Your task to perform on an android device: Search for Mexican restaurants on Maps Image 0: 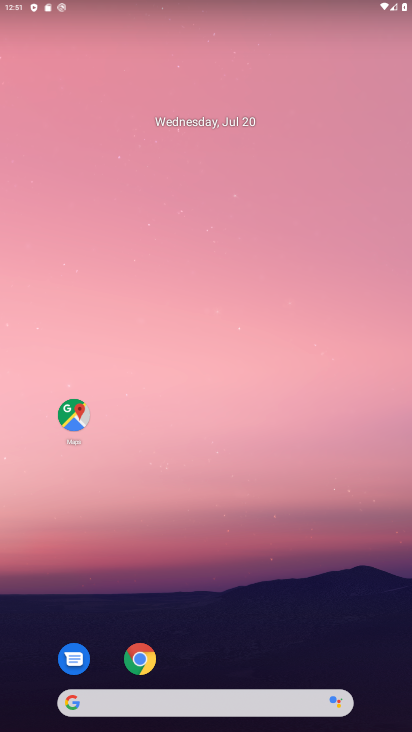
Step 0: drag from (359, 649) to (189, 16)
Your task to perform on an android device: Search for Mexican restaurants on Maps Image 1: 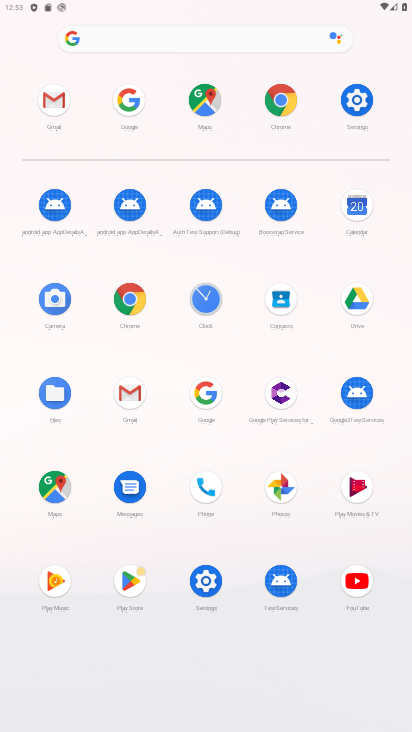
Step 1: click (55, 486)
Your task to perform on an android device: Search for Mexican restaurants on Maps Image 2: 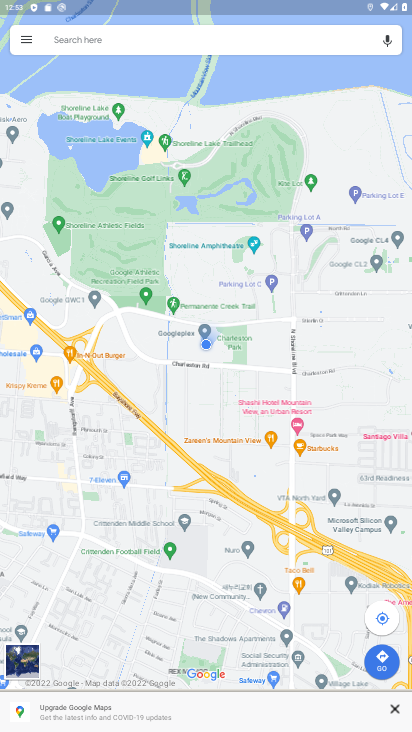
Step 2: click (128, 35)
Your task to perform on an android device: Search for Mexican restaurants on Maps Image 3: 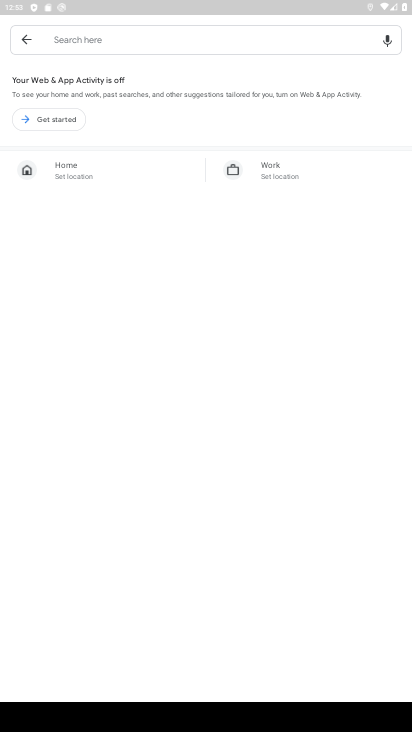
Step 3: click (58, 123)
Your task to perform on an android device: Search for Mexican restaurants on Maps Image 4: 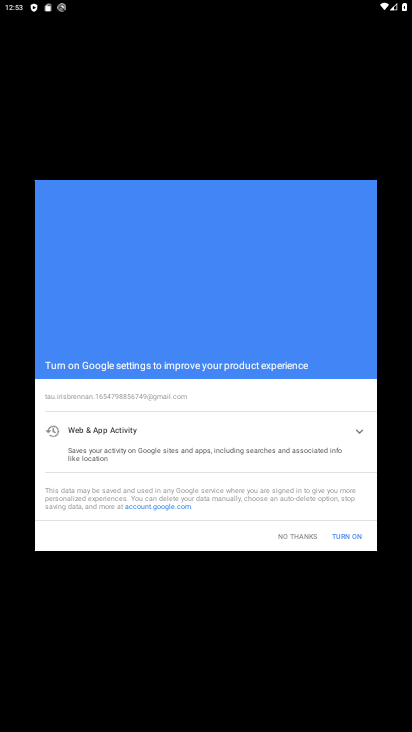
Step 4: click (351, 530)
Your task to perform on an android device: Search for Mexican restaurants on Maps Image 5: 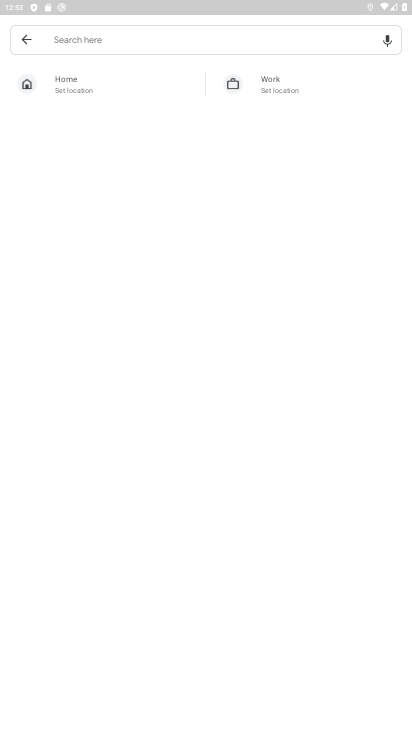
Step 5: click (126, 35)
Your task to perform on an android device: Search for Mexican restaurants on Maps Image 6: 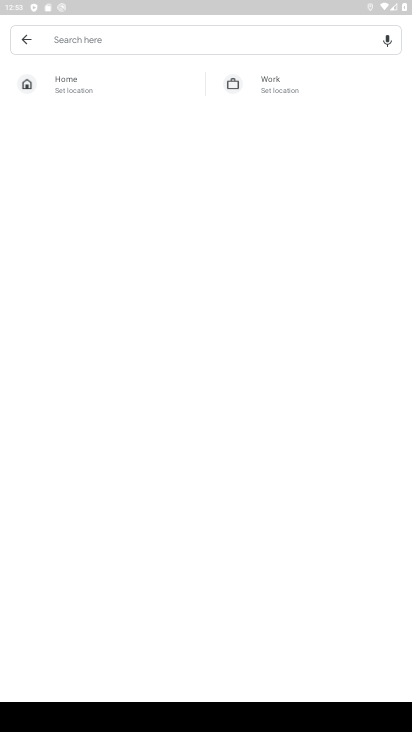
Step 6: type "Mexican restaurants"
Your task to perform on an android device: Search for Mexican restaurants on Maps Image 7: 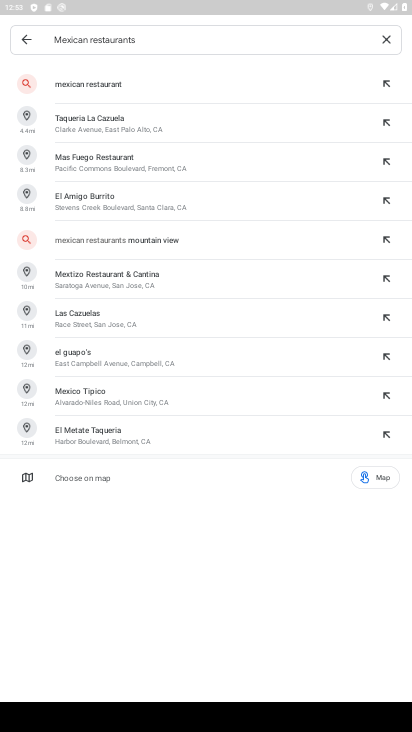
Step 7: click (98, 79)
Your task to perform on an android device: Search for Mexican restaurants on Maps Image 8: 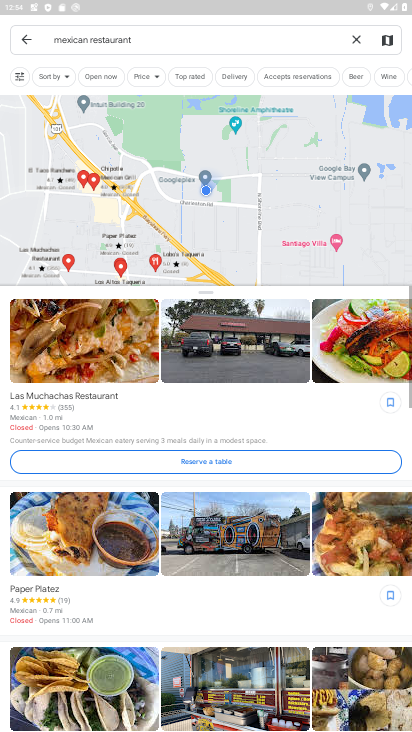
Step 8: task complete